Your task to perform on an android device: Open Yahoo.com Image 0: 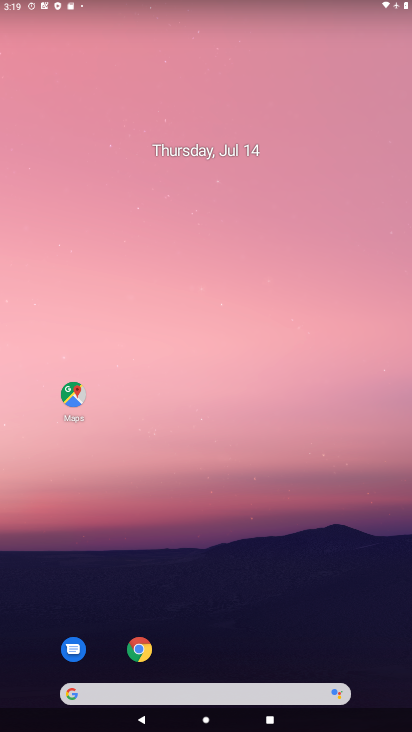
Step 0: click (141, 643)
Your task to perform on an android device: Open Yahoo.com Image 1: 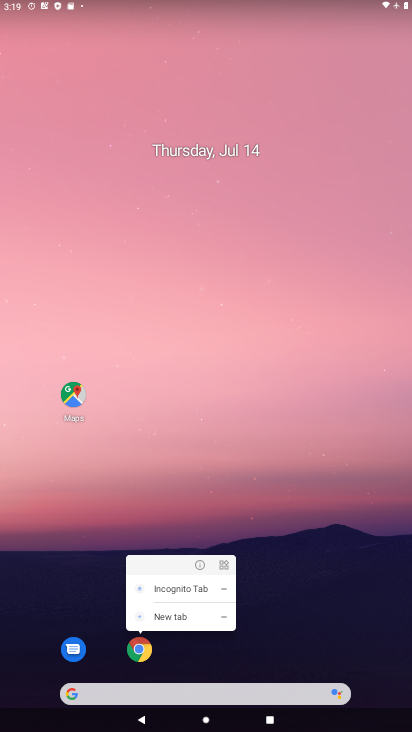
Step 1: click (142, 654)
Your task to perform on an android device: Open Yahoo.com Image 2: 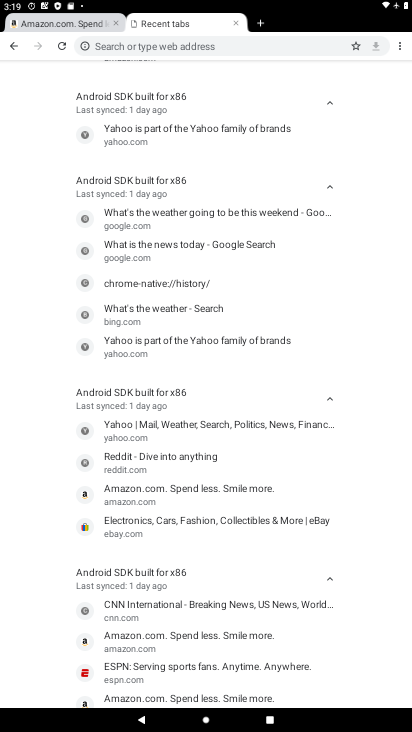
Step 2: click (233, 17)
Your task to perform on an android device: Open Yahoo.com Image 3: 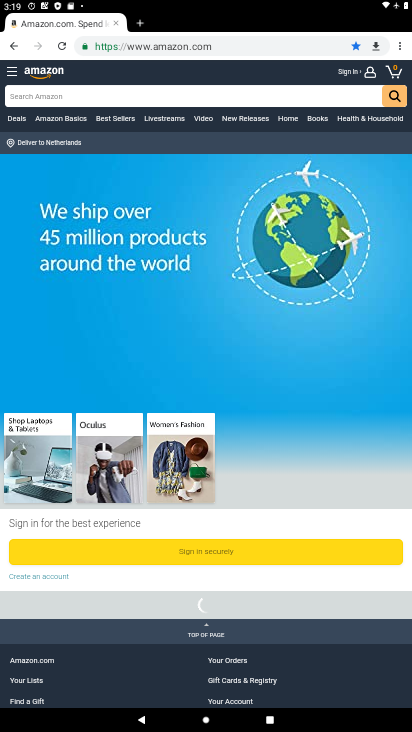
Step 3: click (177, 42)
Your task to perform on an android device: Open Yahoo.com Image 4: 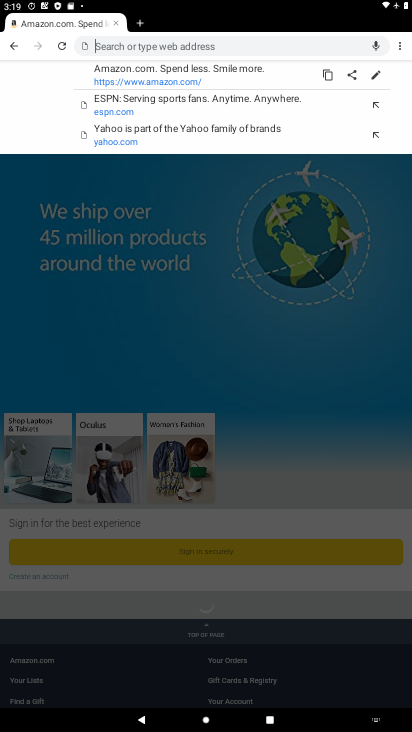
Step 4: type "yahoo.com"
Your task to perform on an android device: Open Yahoo.com Image 5: 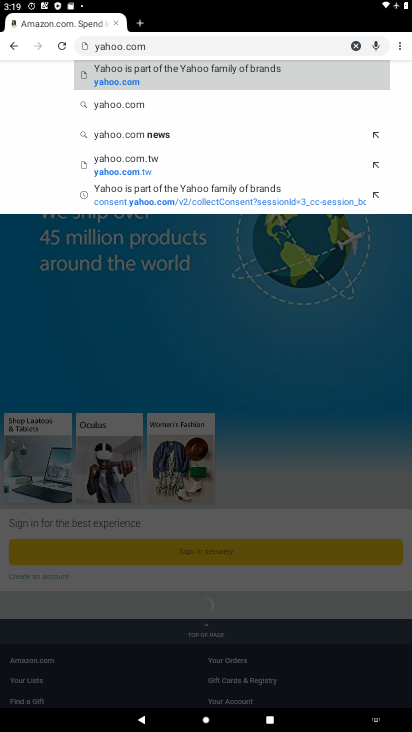
Step 5: click (168, 71)
Your task to perform on an android device: Open Yahoo.com Image 6: 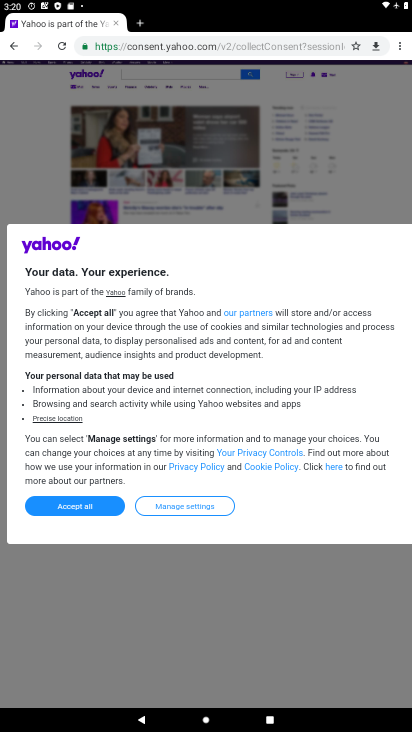
Step 6: task complete